Your task to perform on an android device: check android version Image 0: 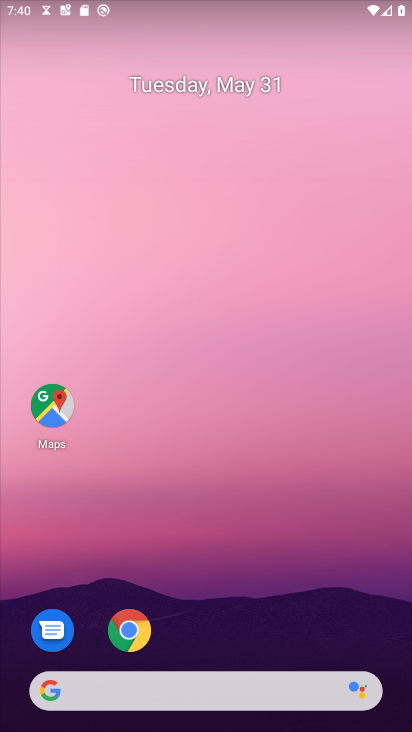
Step 0: drag from (271, 611) to (214, 197)
Your task to perform on an android device: check android version Image 1: 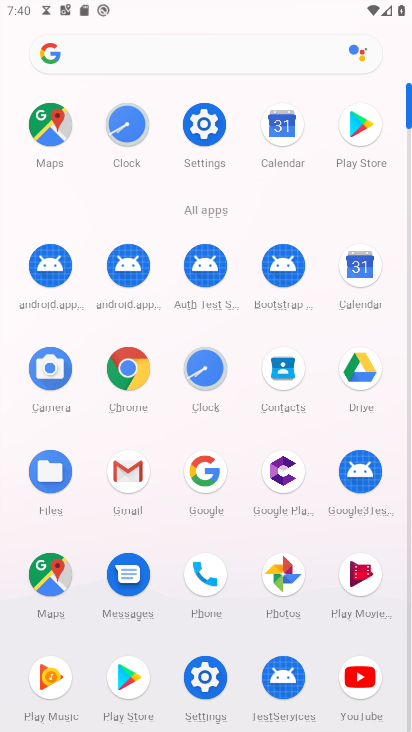
Step 1: click (204, 127)
Your task to perform on an android device: check android version Image 2: 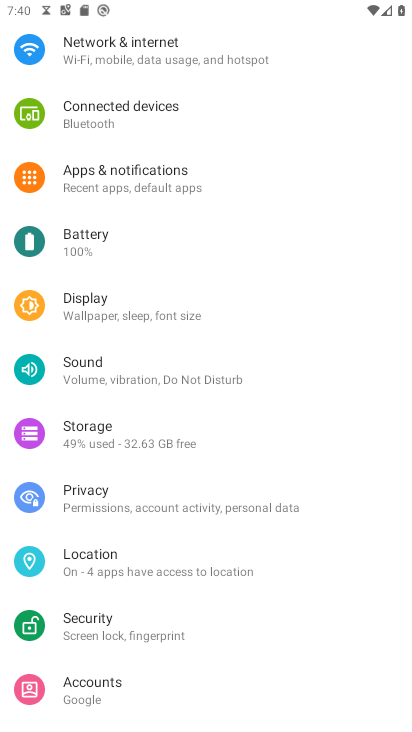
Step 2: drag from (139, 409) to (186, 342)
Your task to perform on an android device: check android version Image 3: 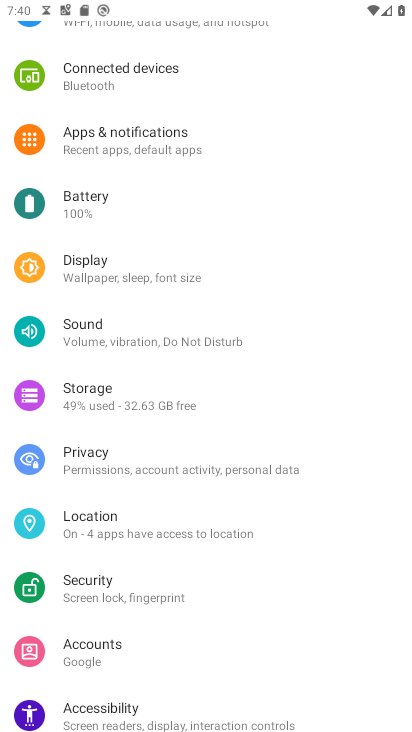
Step 3: drag from (119, 493) to (195, 412)
Your task to perform on an android device: check android version Image 4: 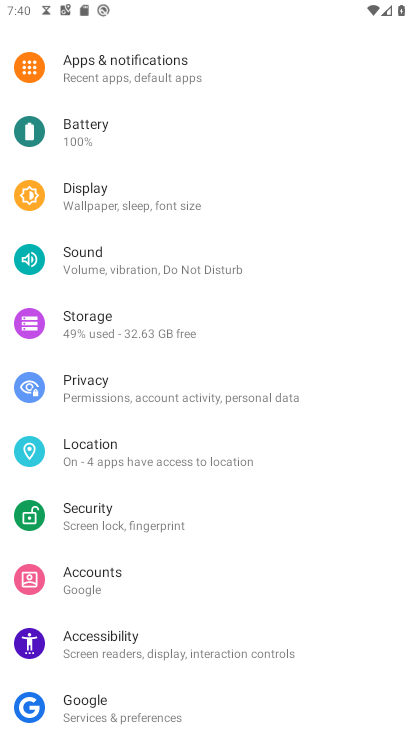
Step 4: drag from (98, 530) to (178, 441)
Your task to perform on an android device: check android version Image 5: 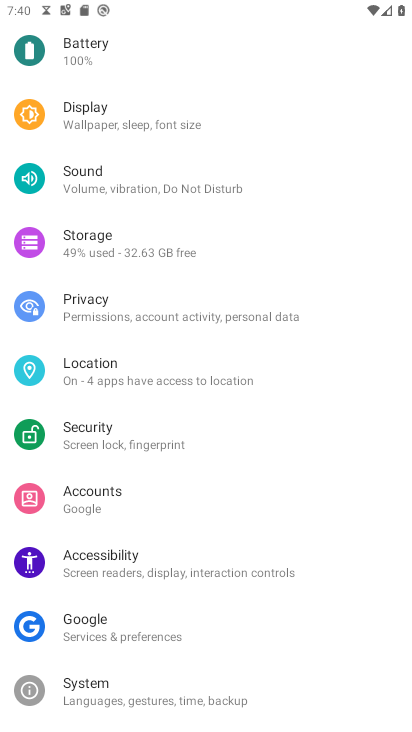
Step 5: drag from (80, 594) to (149, 512)
Your task to perform on an android device: check android version Image 6: 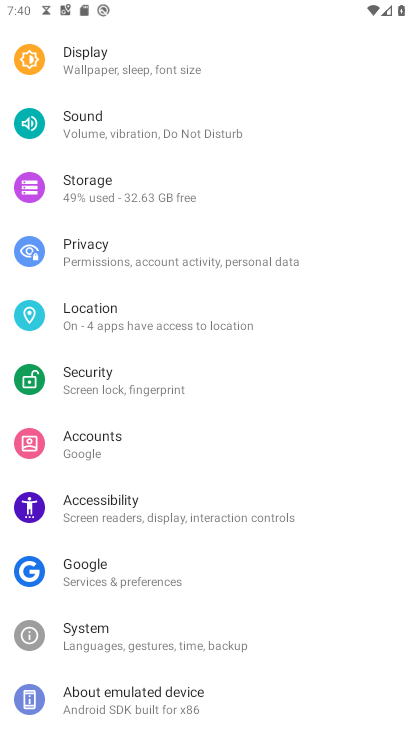
Step 6: drag from (84, 662) to (155, 584)
Your task to perform on an android device: check android version Image 7: 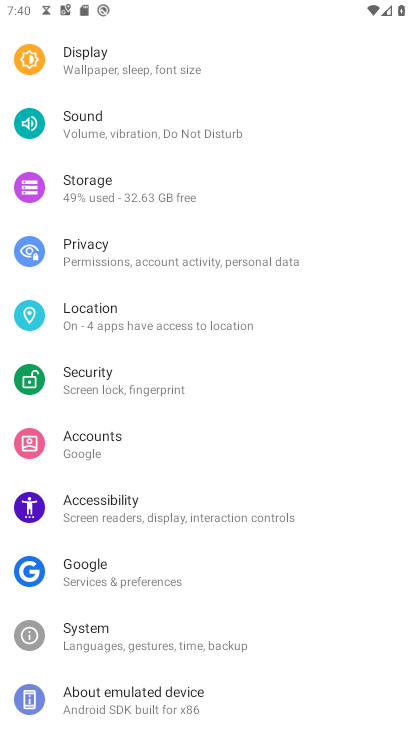
Step 7: click (118, 691)
Your task to perform on an android device: check android version Image 8: 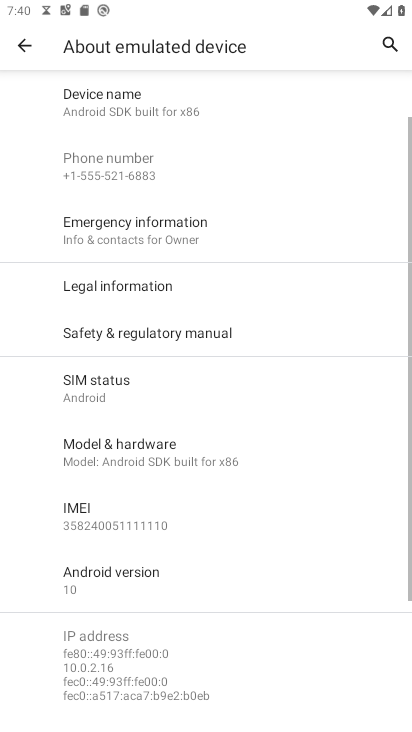
Step 8: drag from (140, 556) to (186, 490)
Your task to perform on an android device: check android version Image 9: 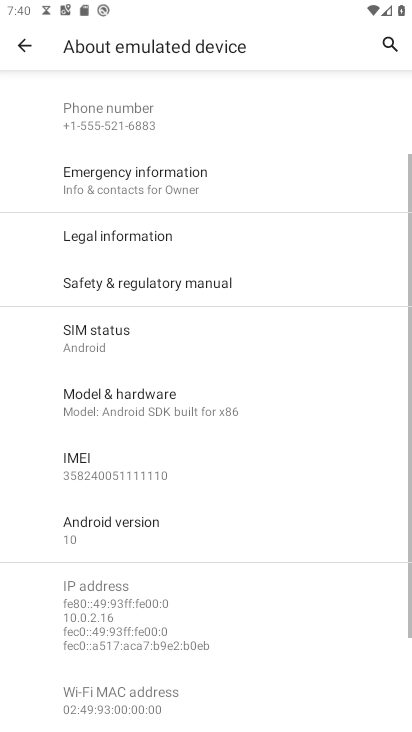
Step 9: click (138, 516)
Your task to perform on an android device: check android version Image 10: 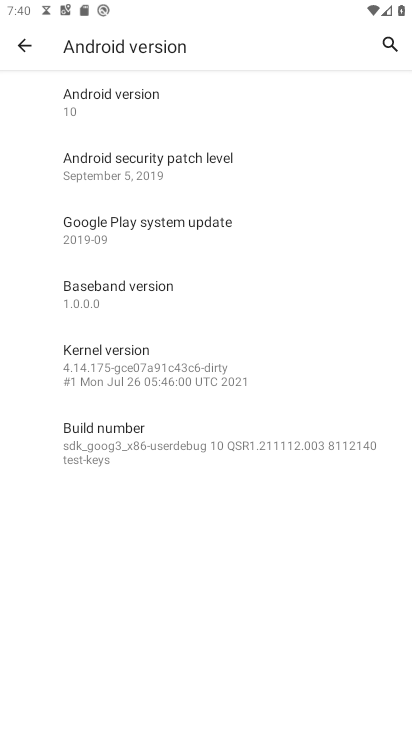
Step 10: task complete